Your task to perform on an android device: Show me the alarms in the clock app Image 0: 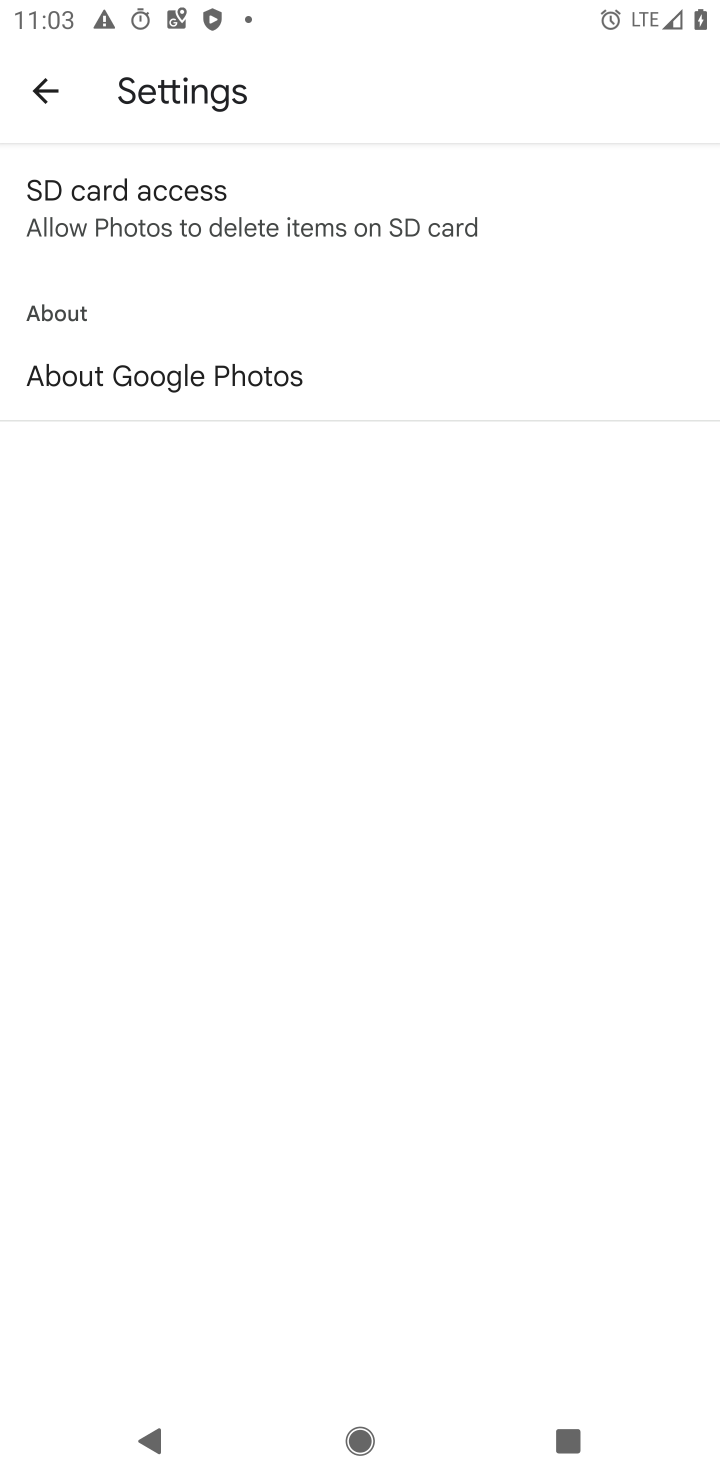
Step 0: press home button
Your task to perform on an android device: Show me the alarms in the clock app Image 1: 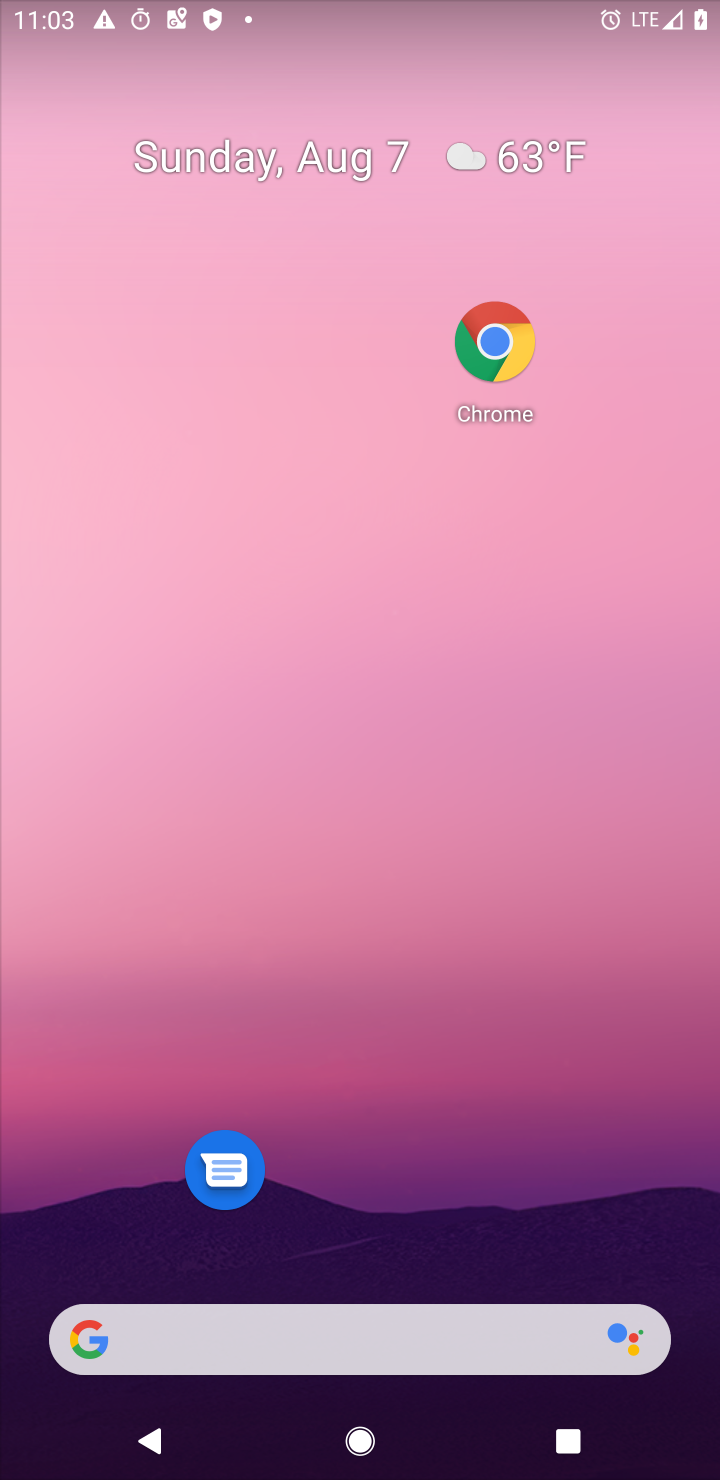
Step 1: drag from (275, 1334) to (230, 5)
Your task to perform on an android device: Show me the alarms in the clock app Image 2: 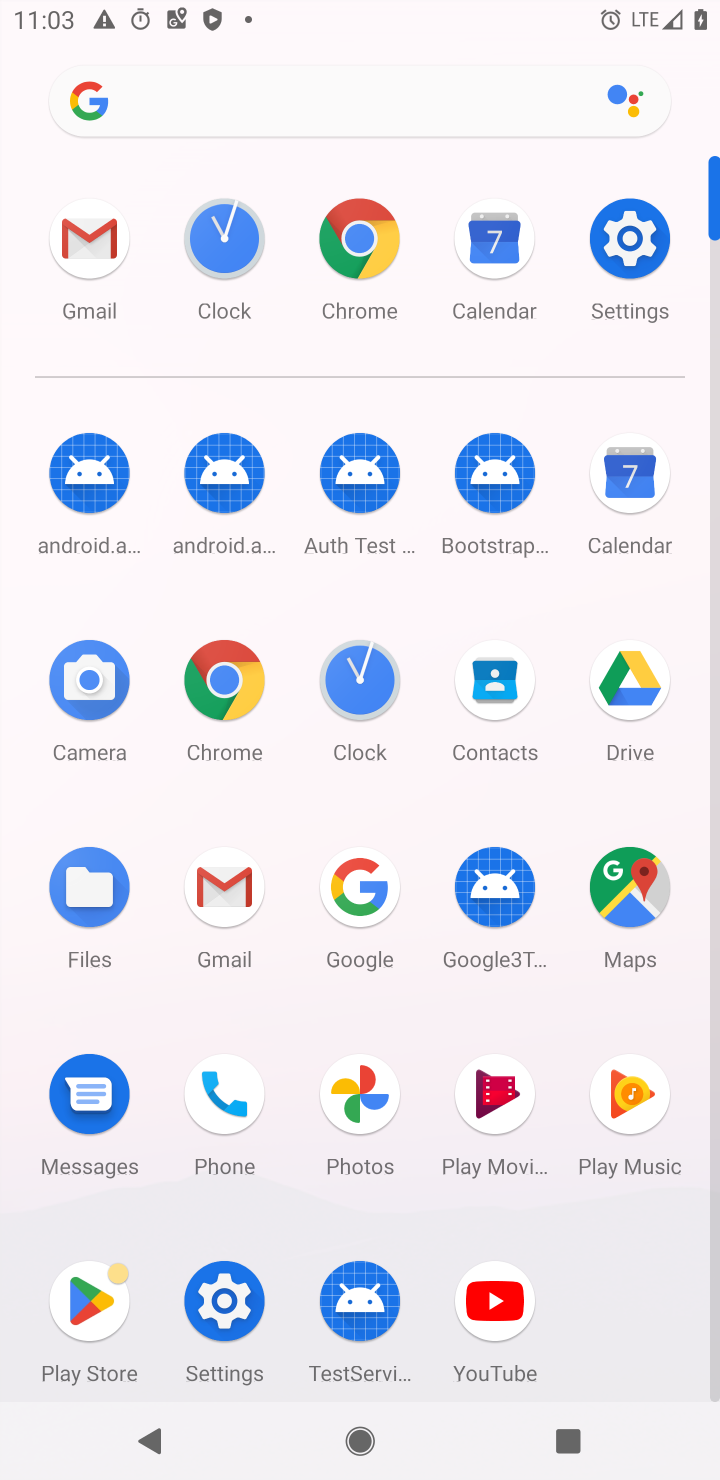
Step 2: click (363, 690)
Your task to perform on an android device: Show me the alarms in the clock app Image 3: 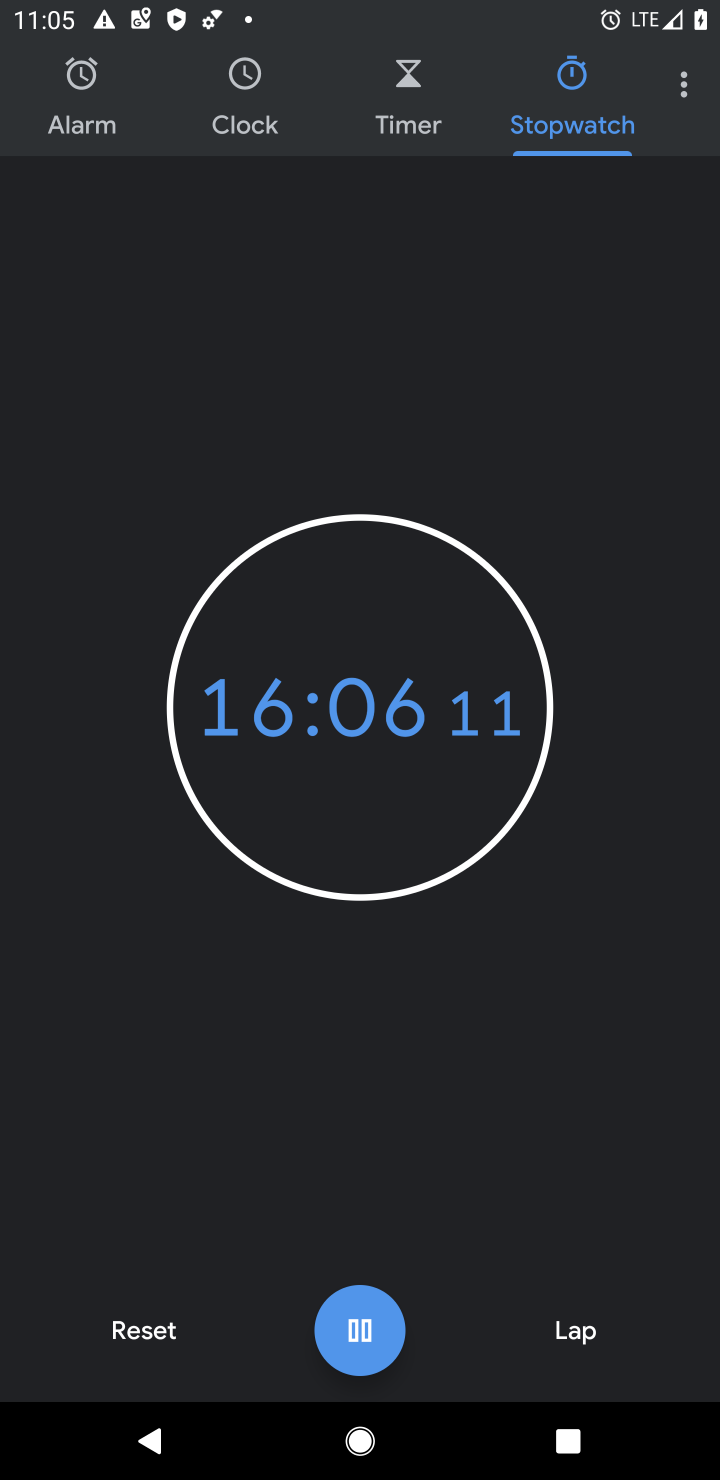
Step 3: click (106, 94)
Your task to perform on an android device: Show me the alarms in the clock app Image 4: 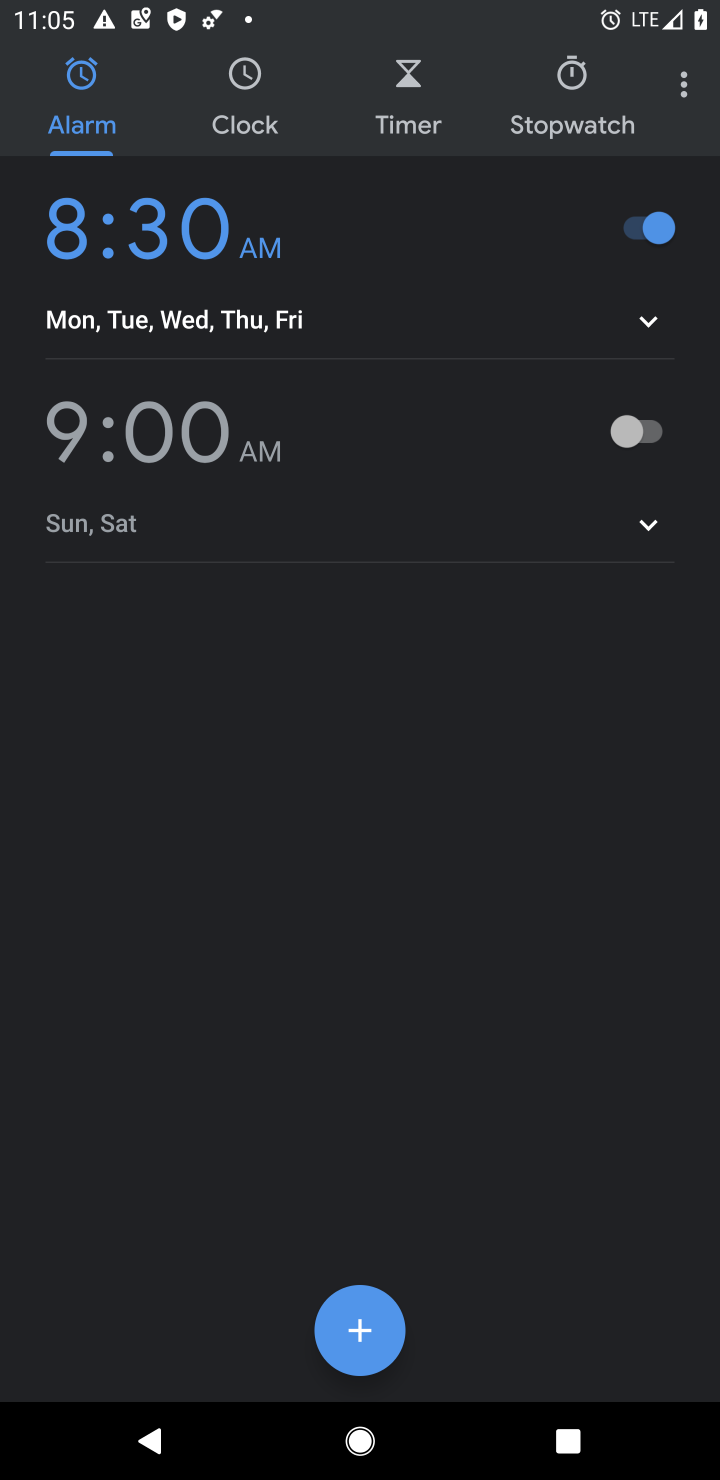
Step 4: task complete